Your task to perform on an android device: install app "Google Drive" Image 0: 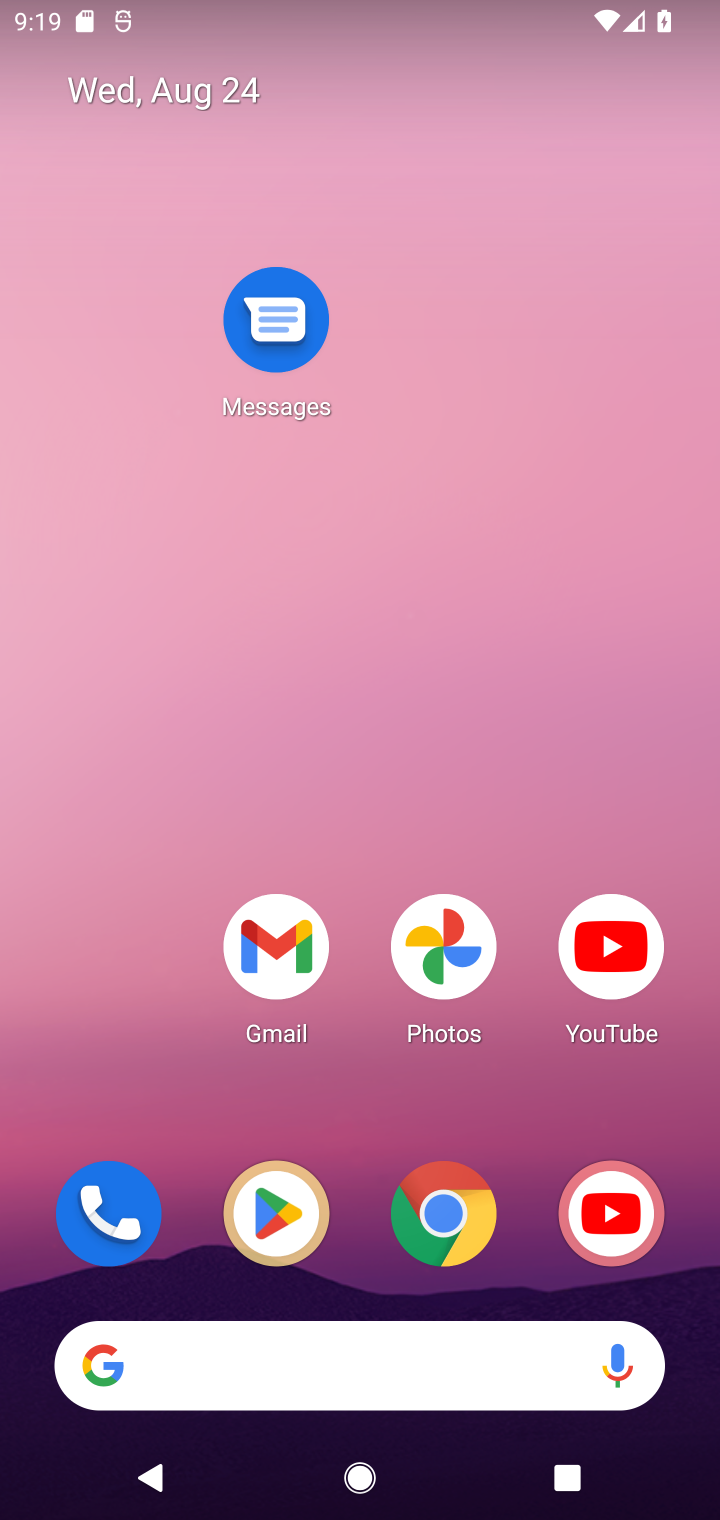
Step 0: click (280, 1226)
Your task to perform on an android device: install app "Google Drive" Image 1: 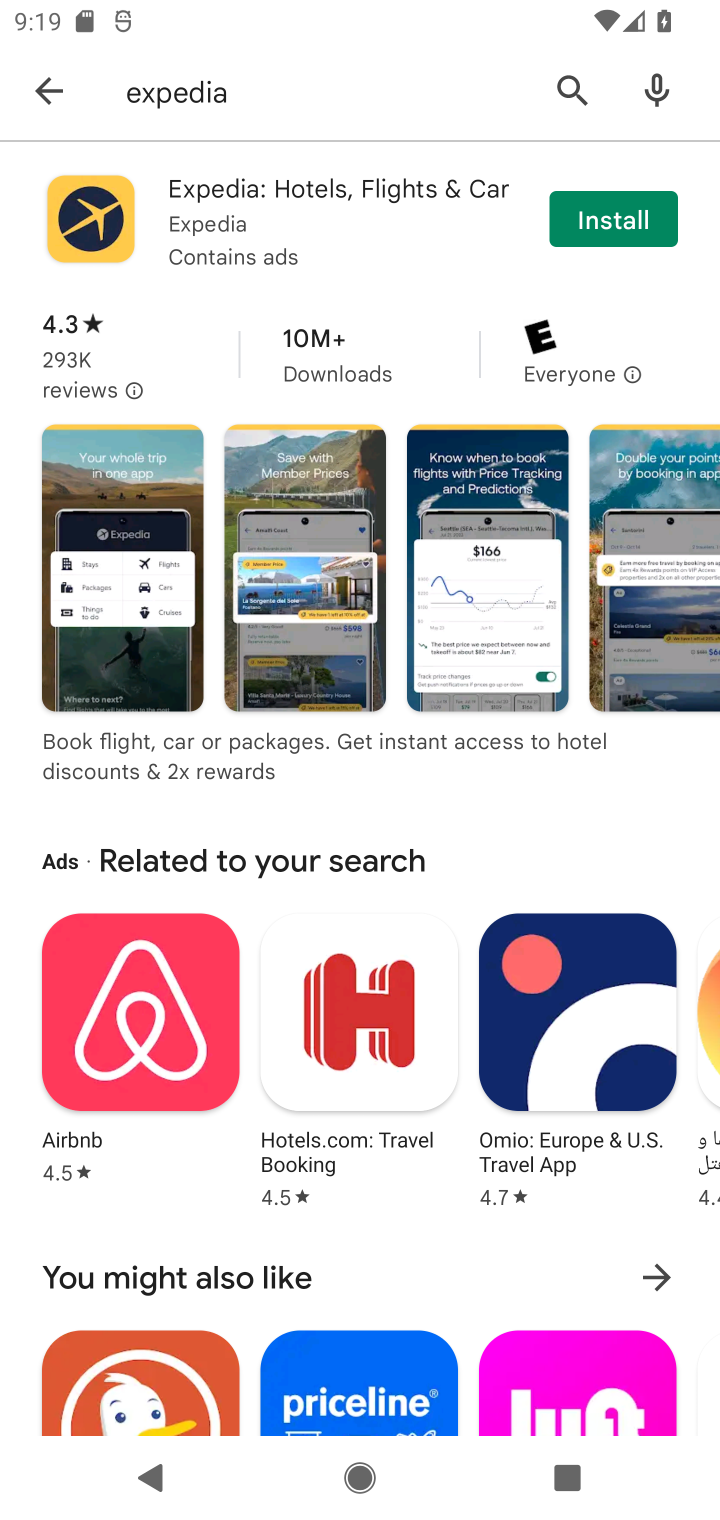
Step 1: click (255, 97)
Your task to perform on an android device: install app "Google Drive" Image 2: 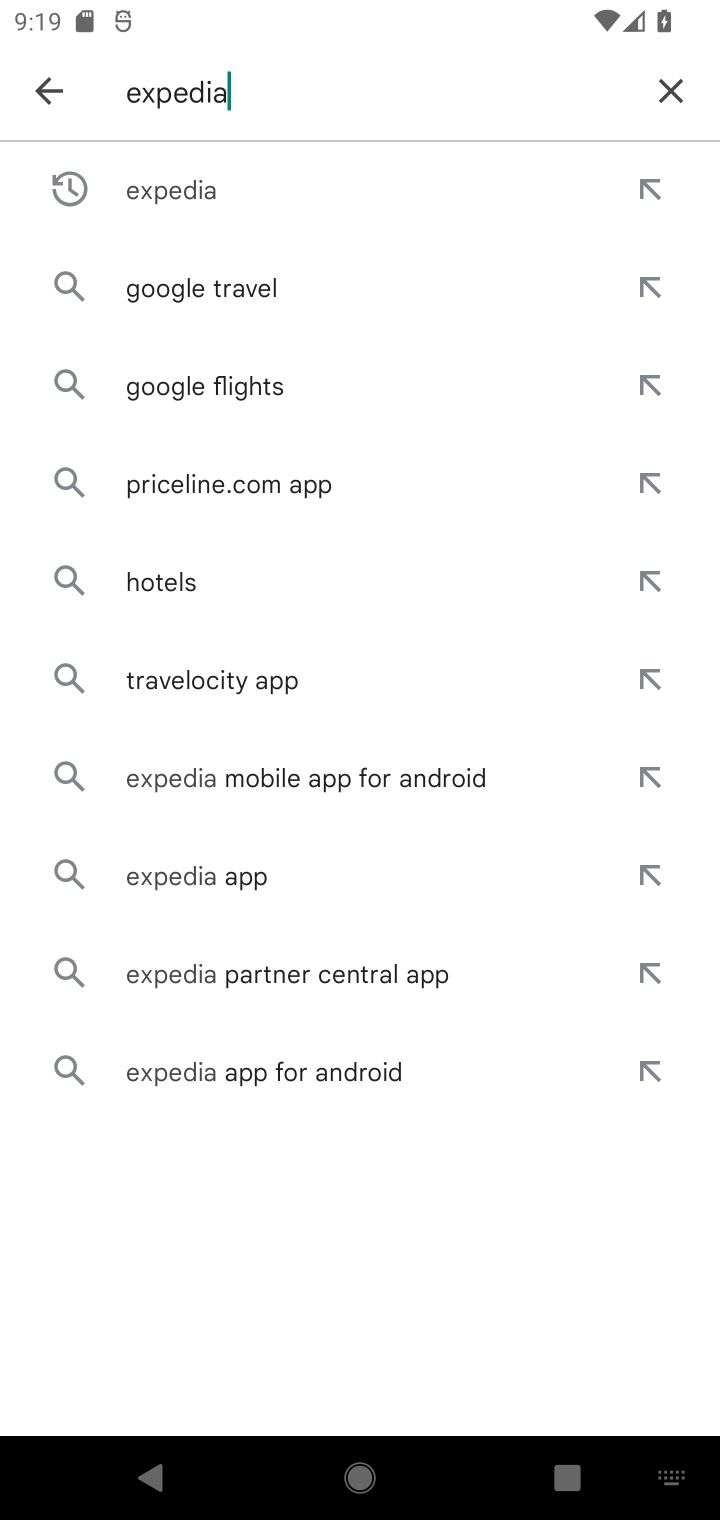
Step 2: click (668, 95)
Your task to perform on an android device: install app "Google Drive" Image 3: 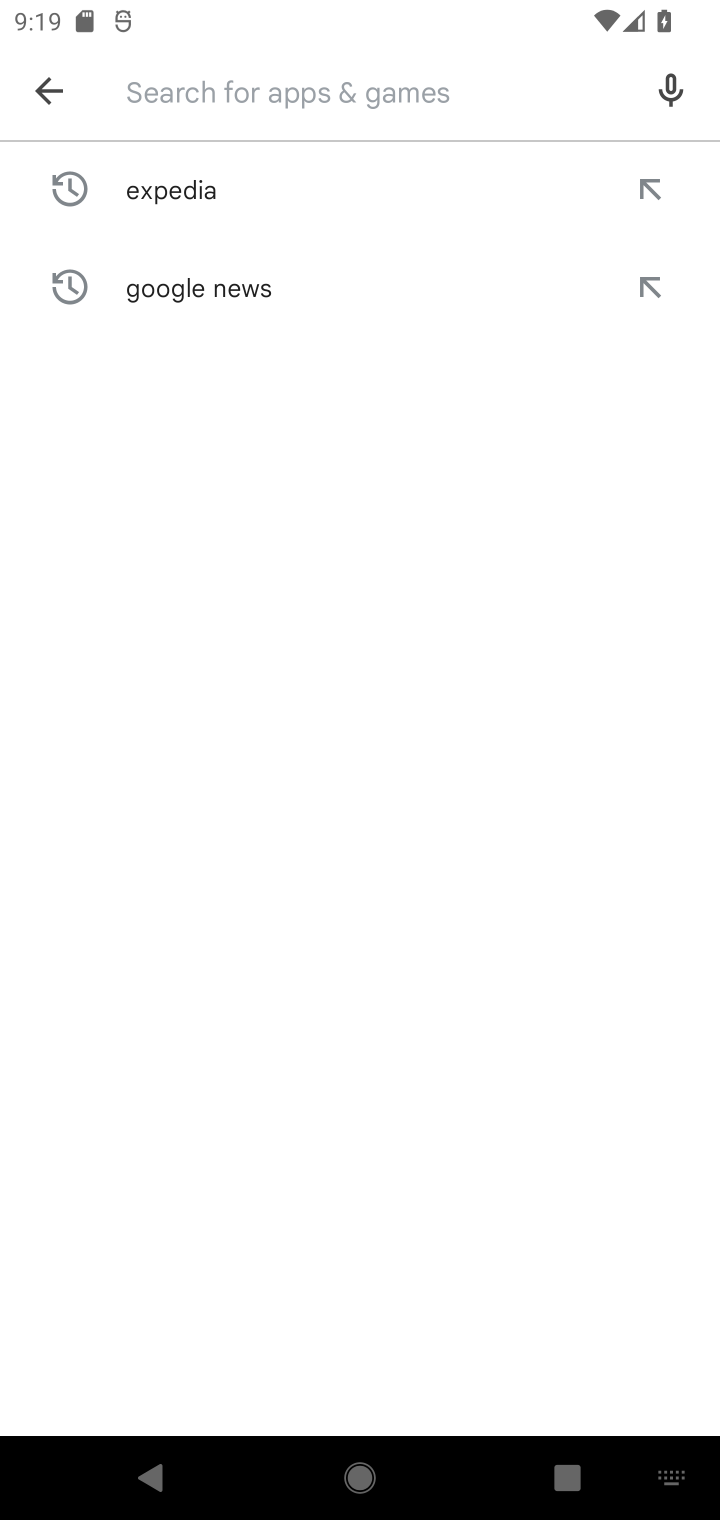
Step 3: type "google drive "
Your task to perform on an android device: install app "Google Drive" Image 4: 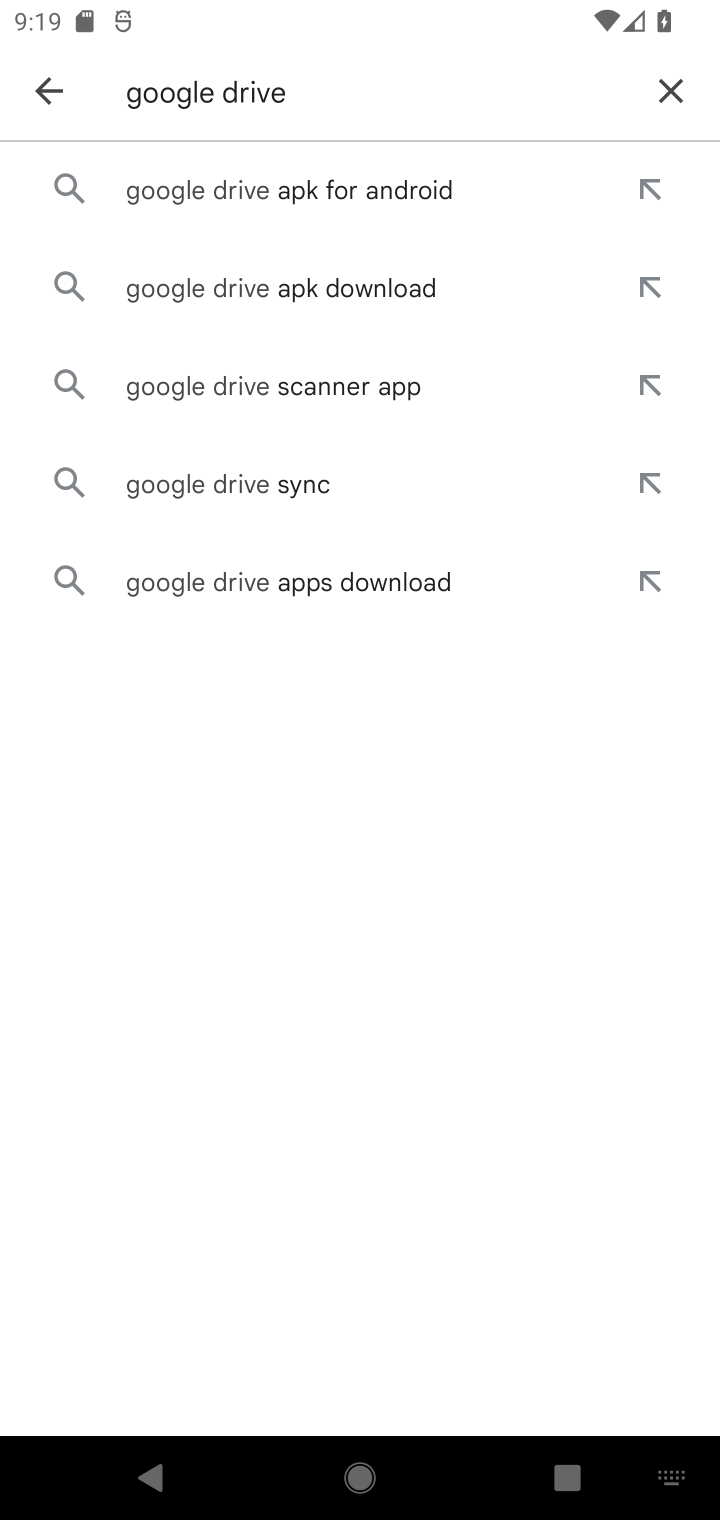
Step 4: click (215, 203)
Your task to perform on an android device: install app "Google Drive" Image 5: 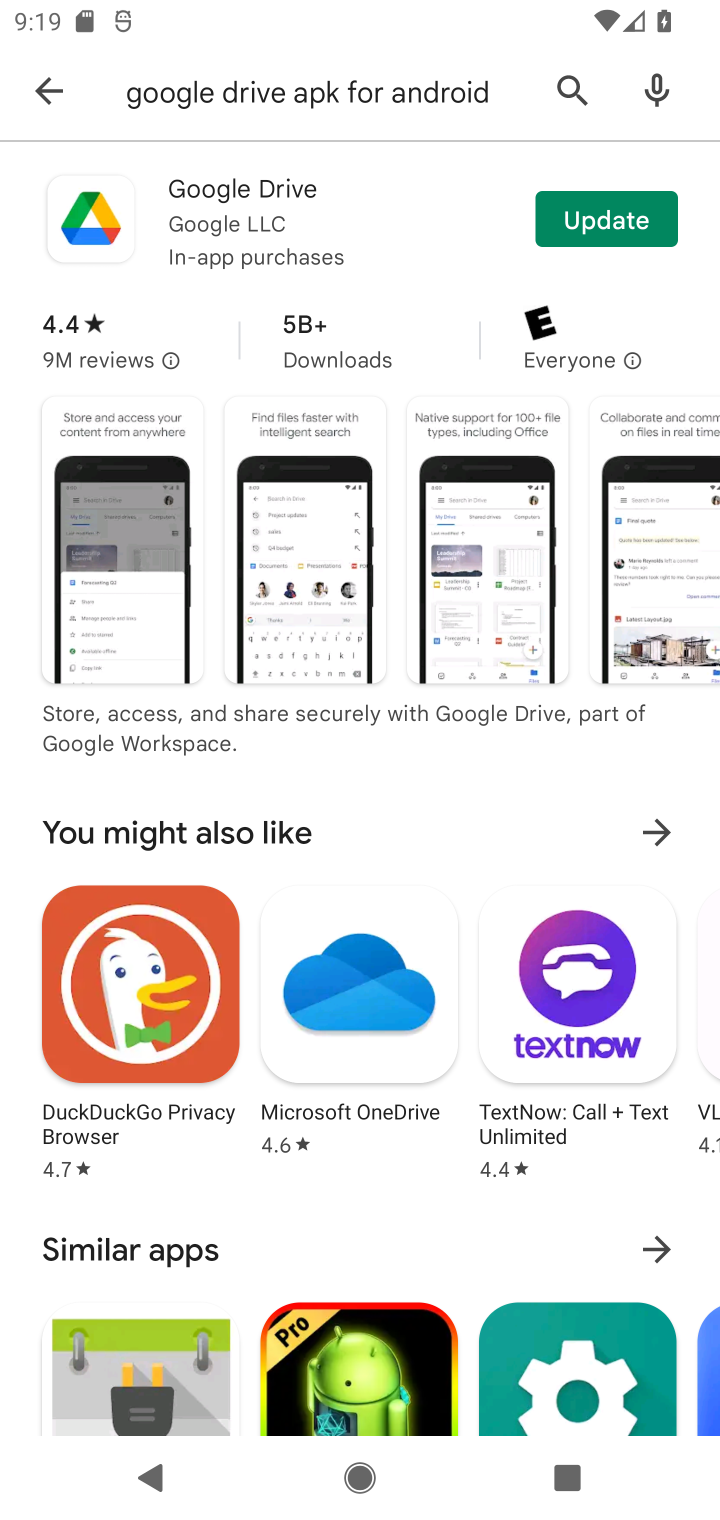
Step 5: click (592, 210)
Your task to perform on an android device: install app "Google Drive" Image 6: 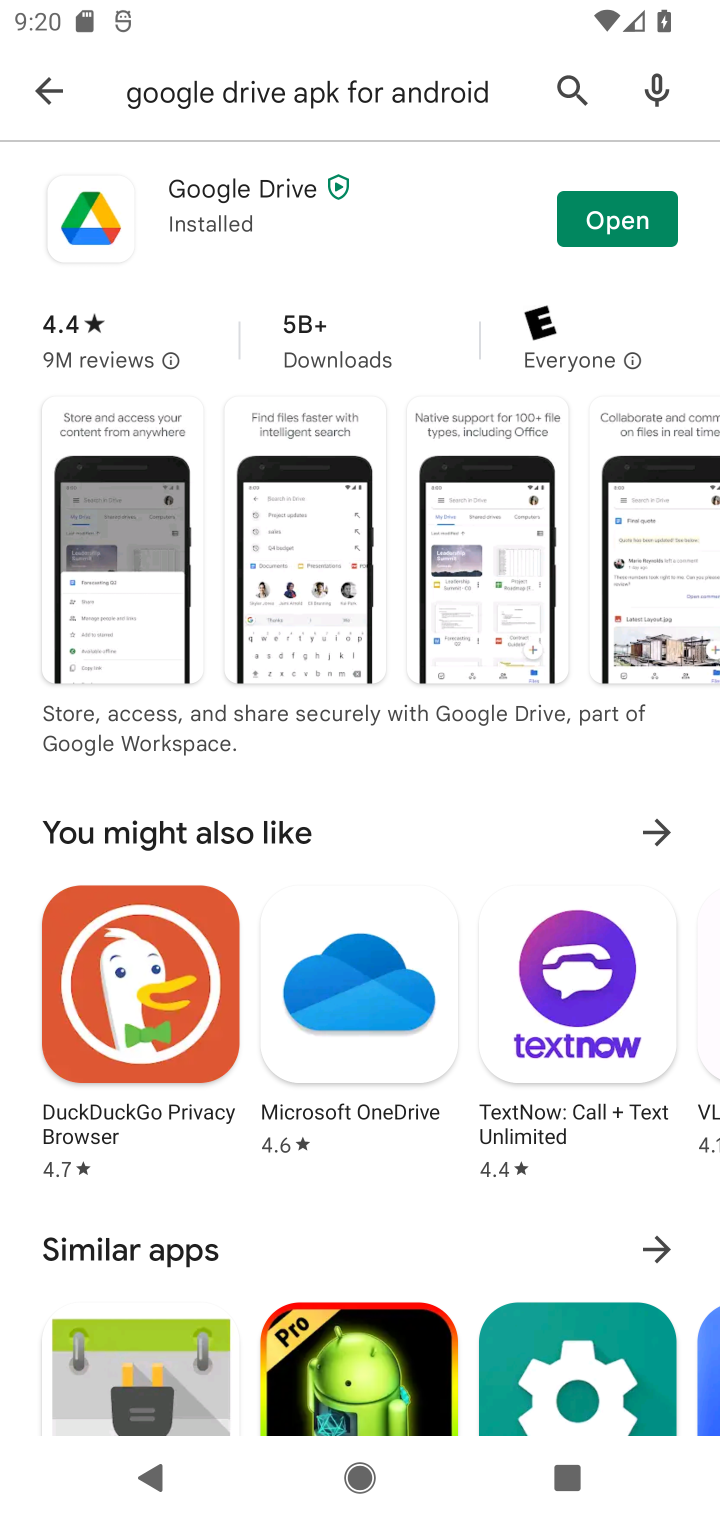
Step 6: task complete